Your task to perform on an android device: change notification settings in the gmail app Image 0: 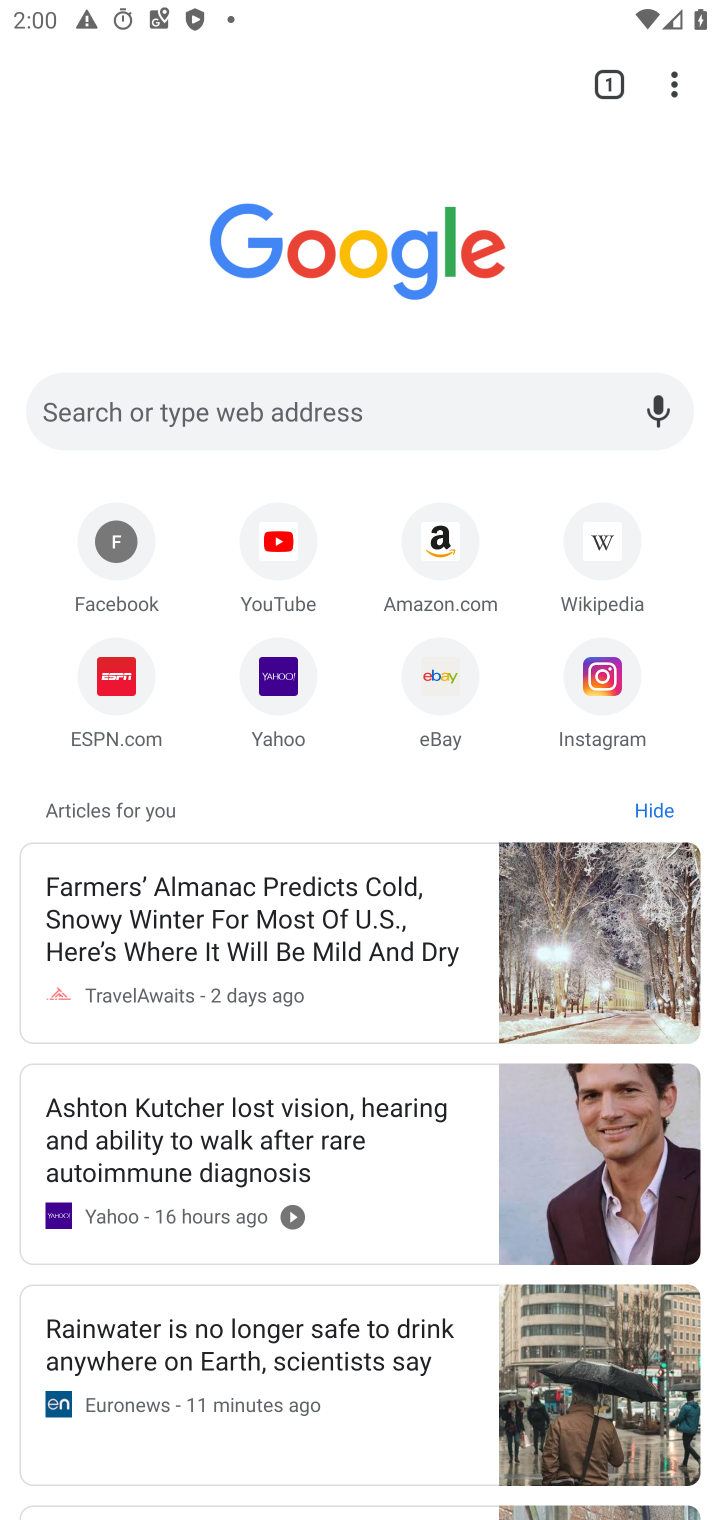
Step 0: press home button
Your task to perform on an android device: change notification settings in the gmail app Image 1: 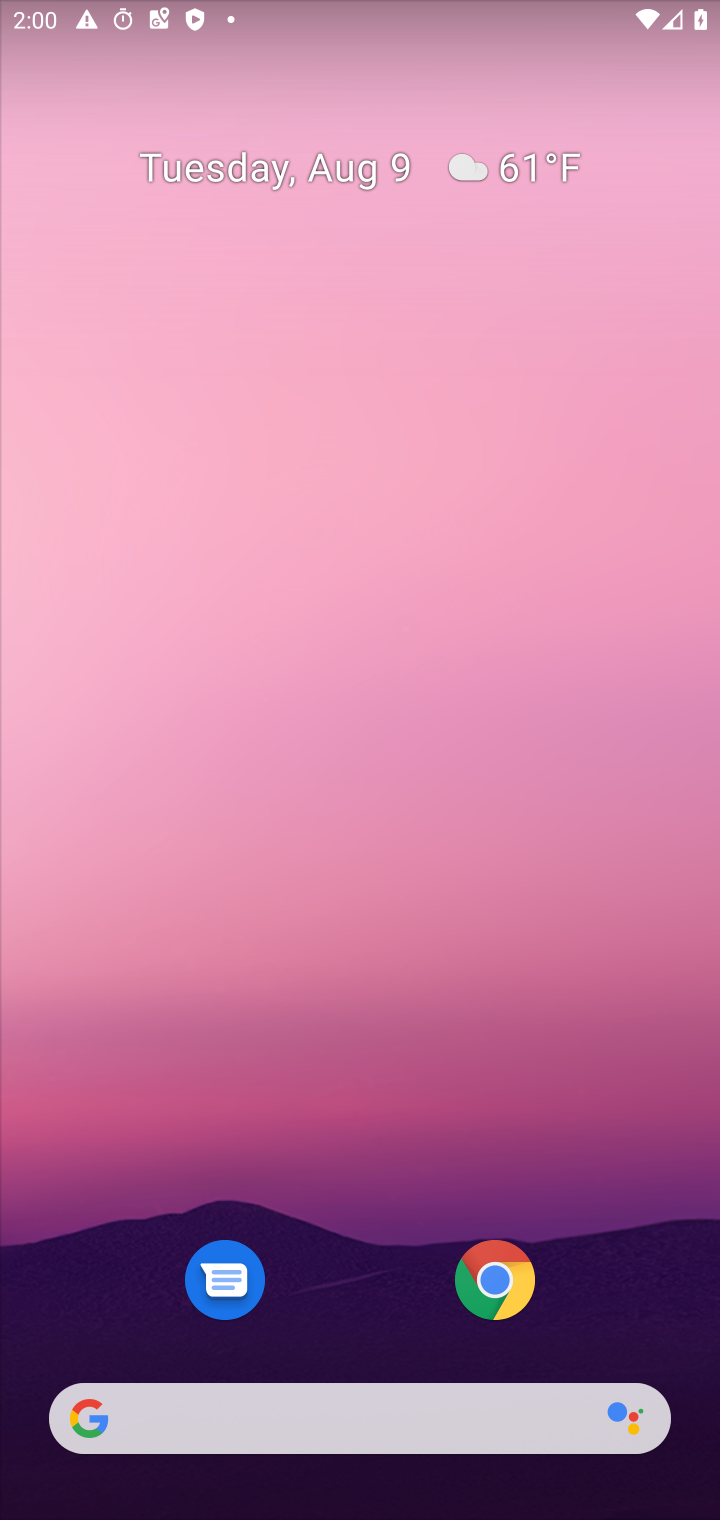
Step 1: drag from (468, 1090) to (584, 348)
Your task to perform on an android device: change notification settings in the gmail app Image 2: 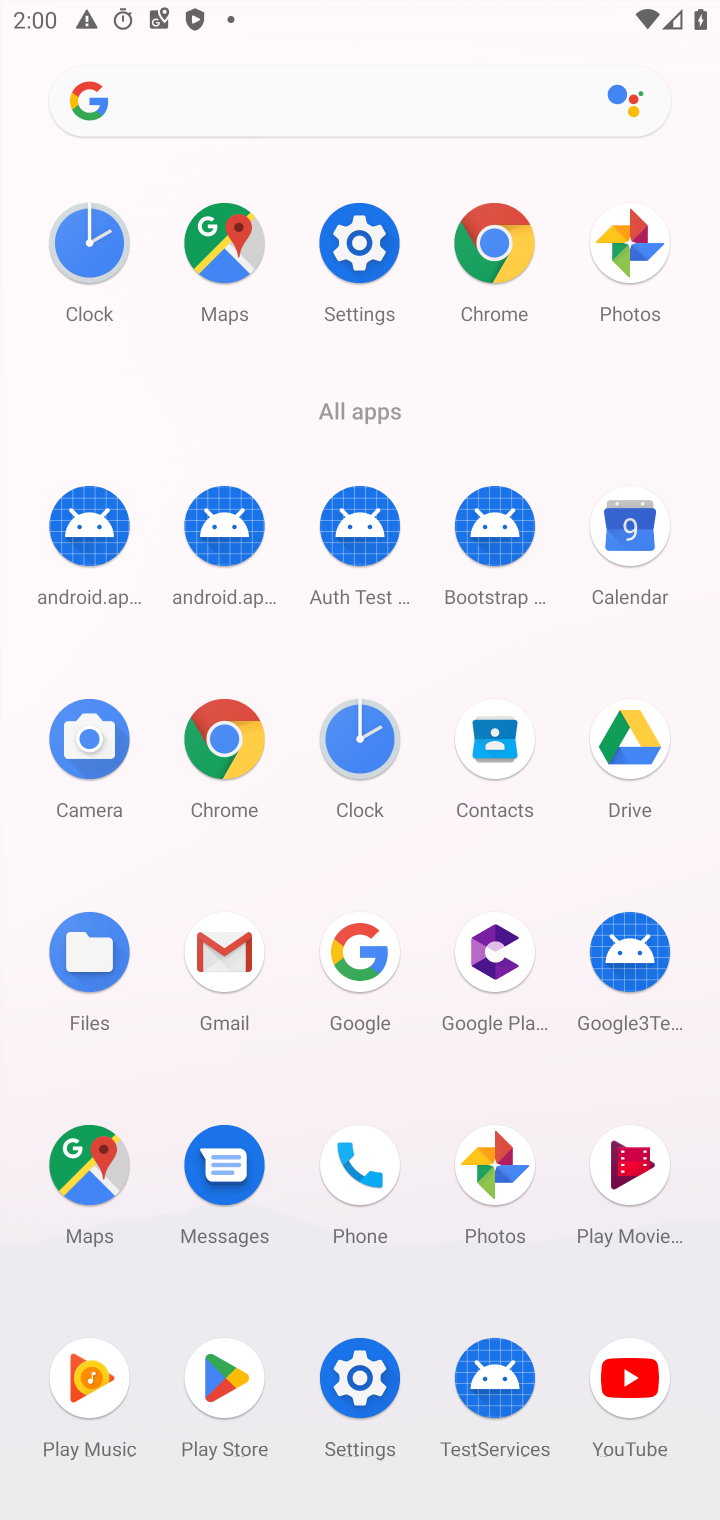
Step 2: click (228, 956)
Your task to perform on an android device: change notification settings in the gmail app Image 3: 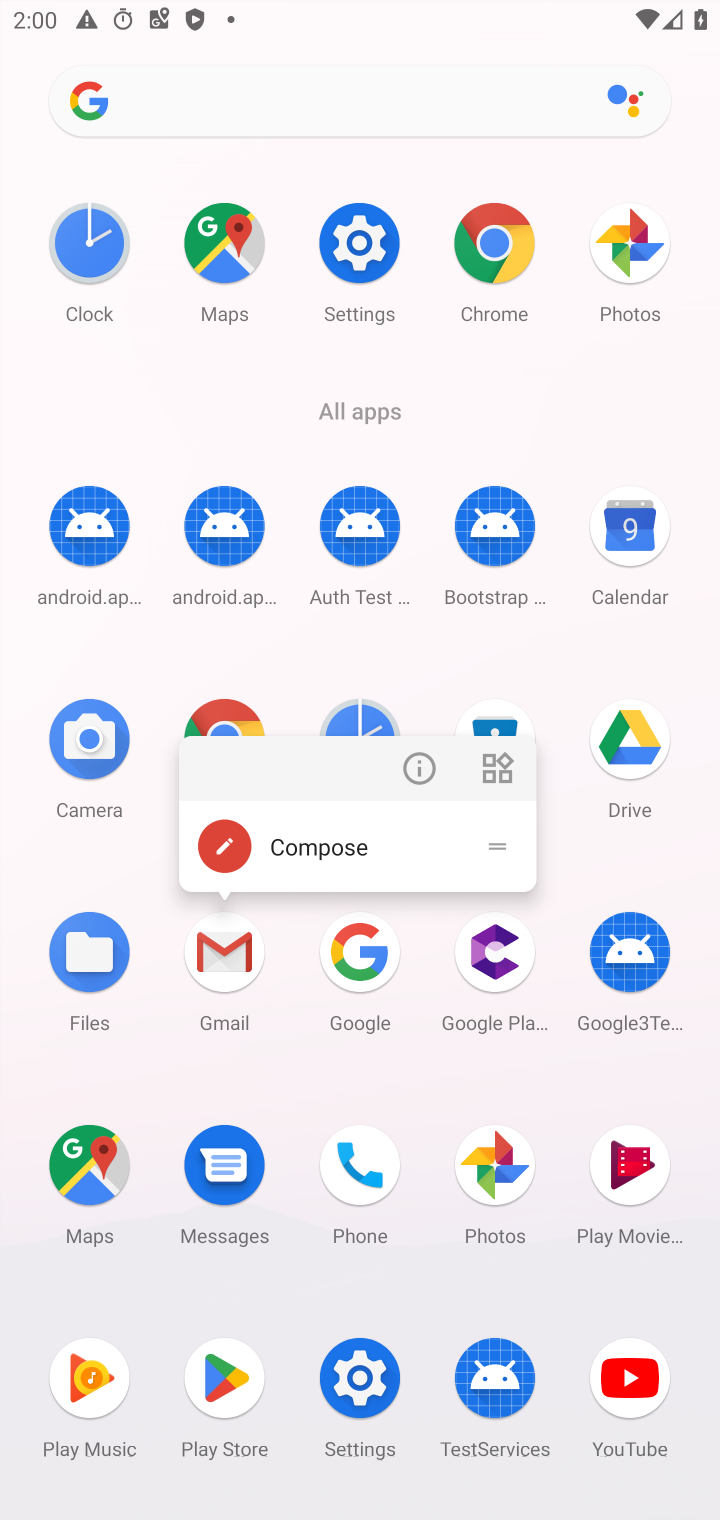
Step 3: click (228, 963)
Your task to perform on an android device: change notification settings in the gmail app Image 4: 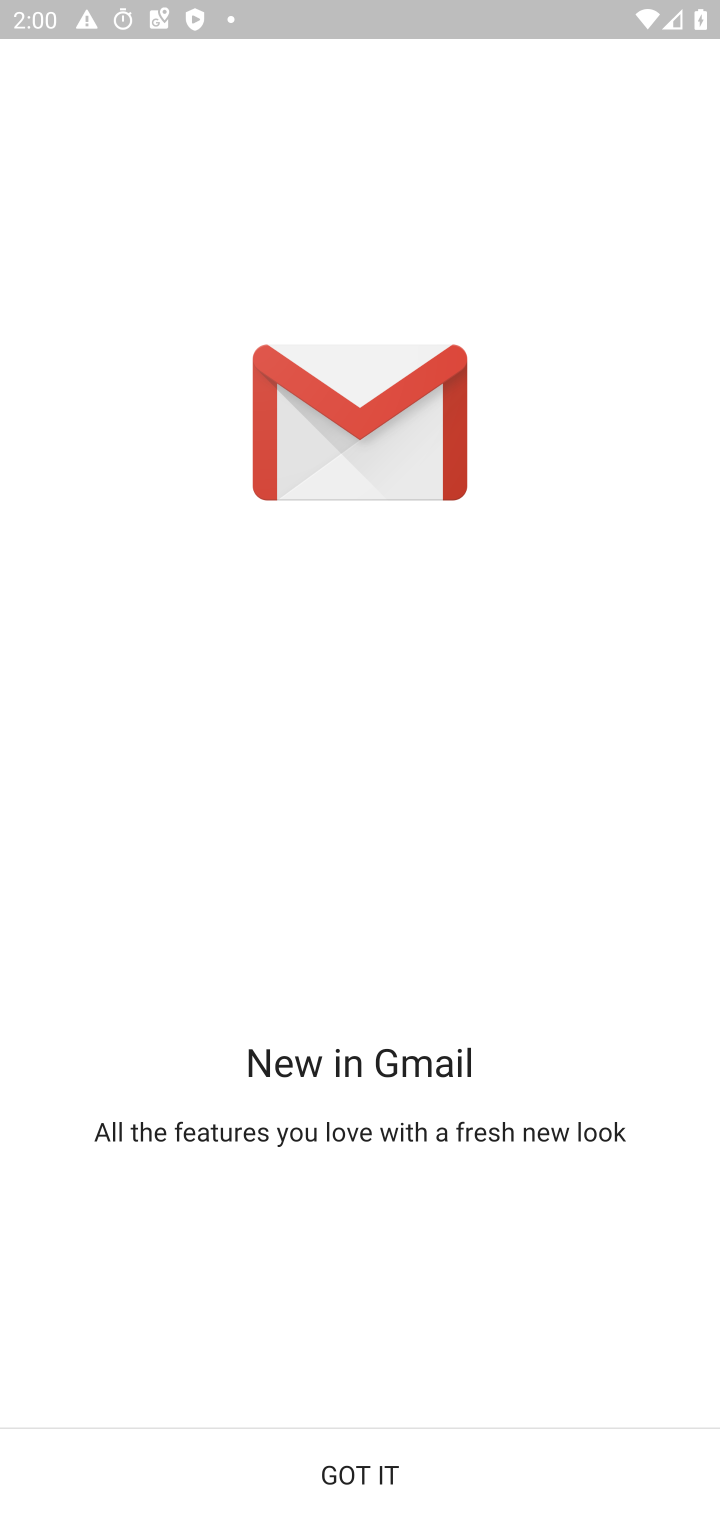
Step 4: click (363, 1478)
Your task to perform on an android device: change notification settings in the gmail app Image 5: 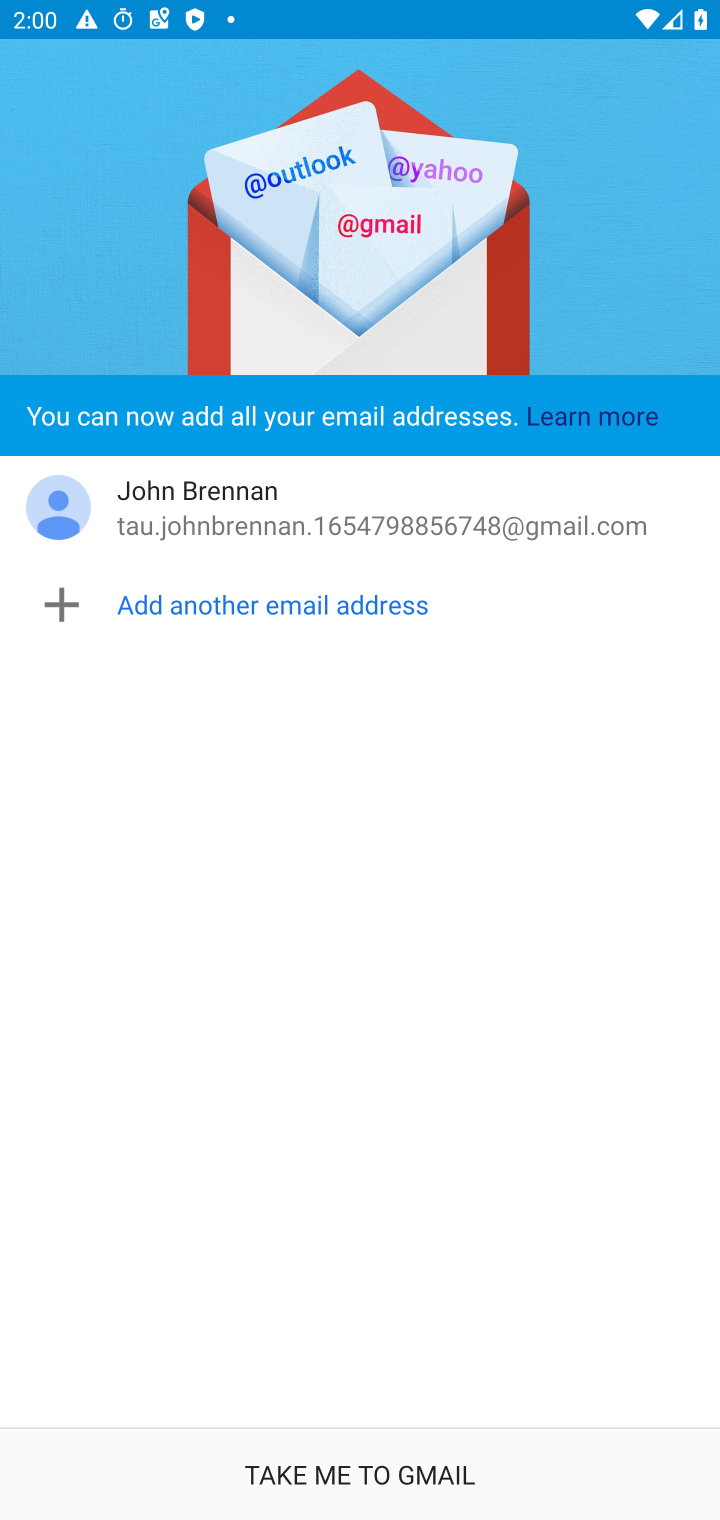
Step 5: click (412, 1458)
Your task to perform on an android device: change notification settings in the gmail app Image 6: 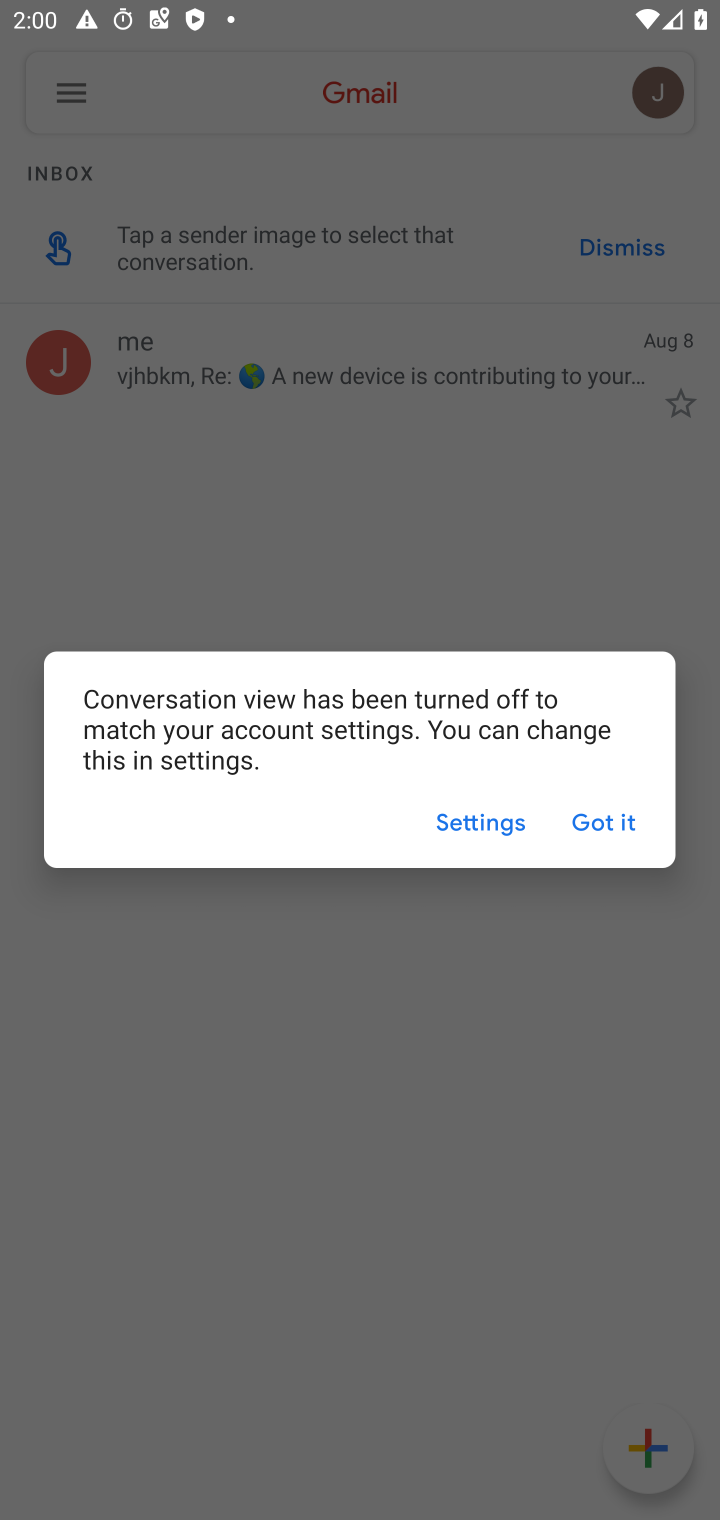
Step 6: click (607, 822)
Your task to perform on an android device: change notification settings in the gmail app Image 7: 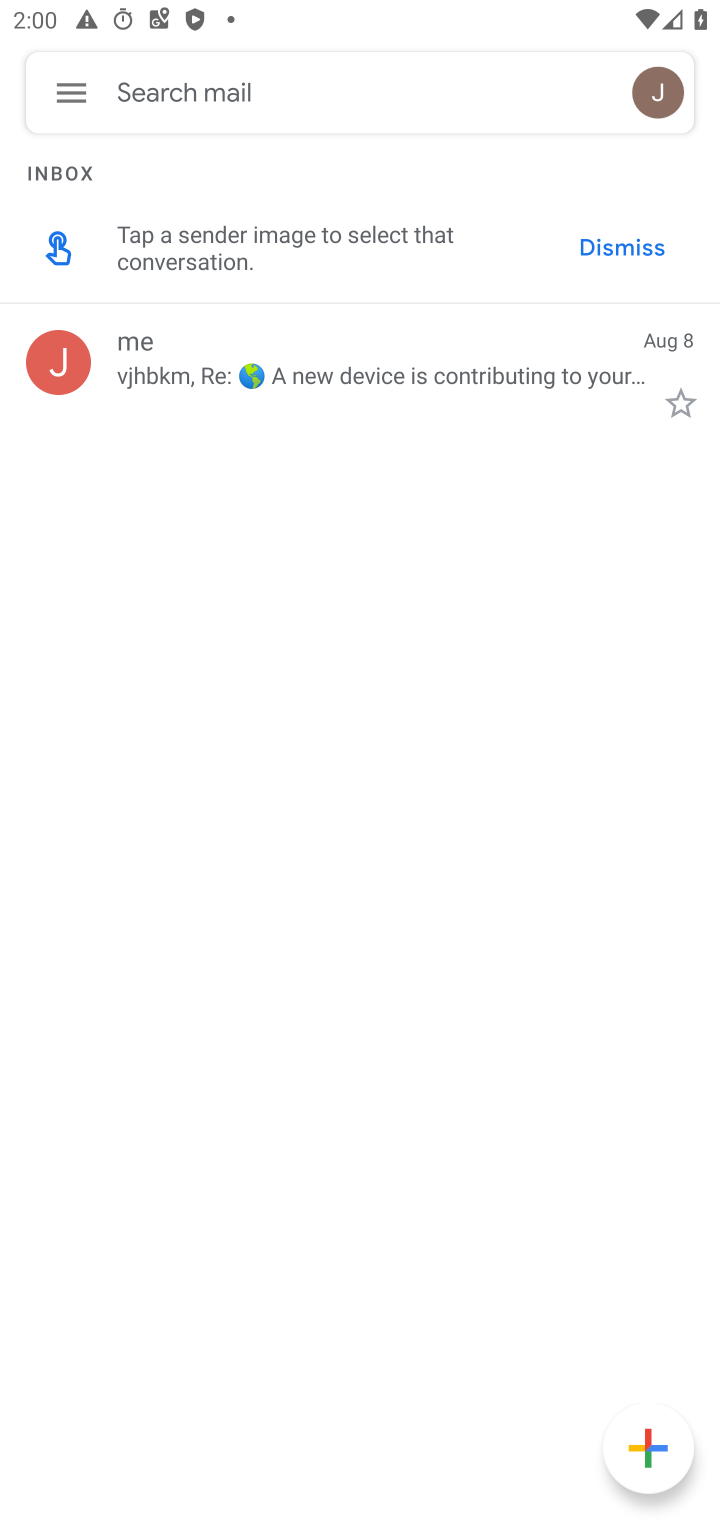
Step 7: click (70, 71)
Your task to perform on an android device: change notification settings in the gmail app Image 8: 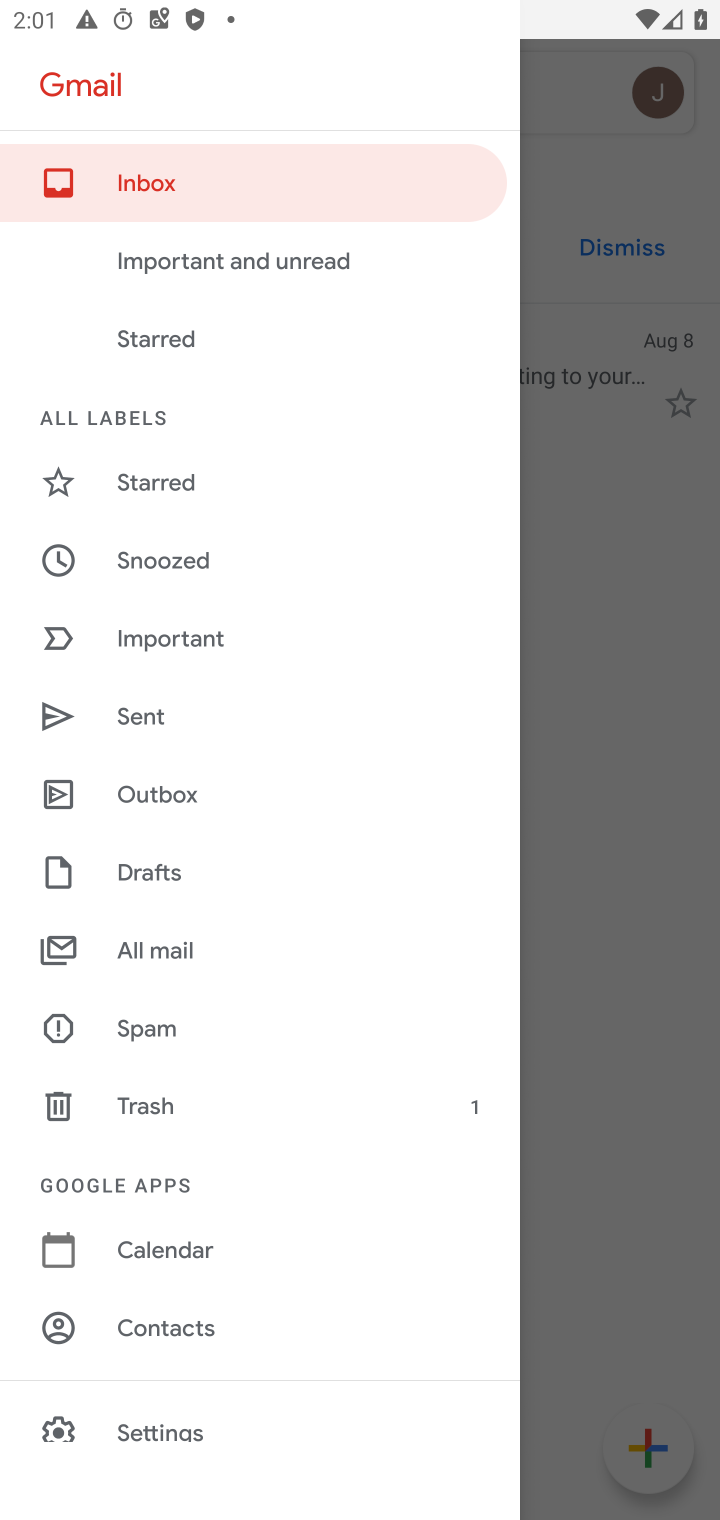
Step 8: click (155, 1424)
Your task to perform on an android device: change notification settings in the gmail app Image 9: 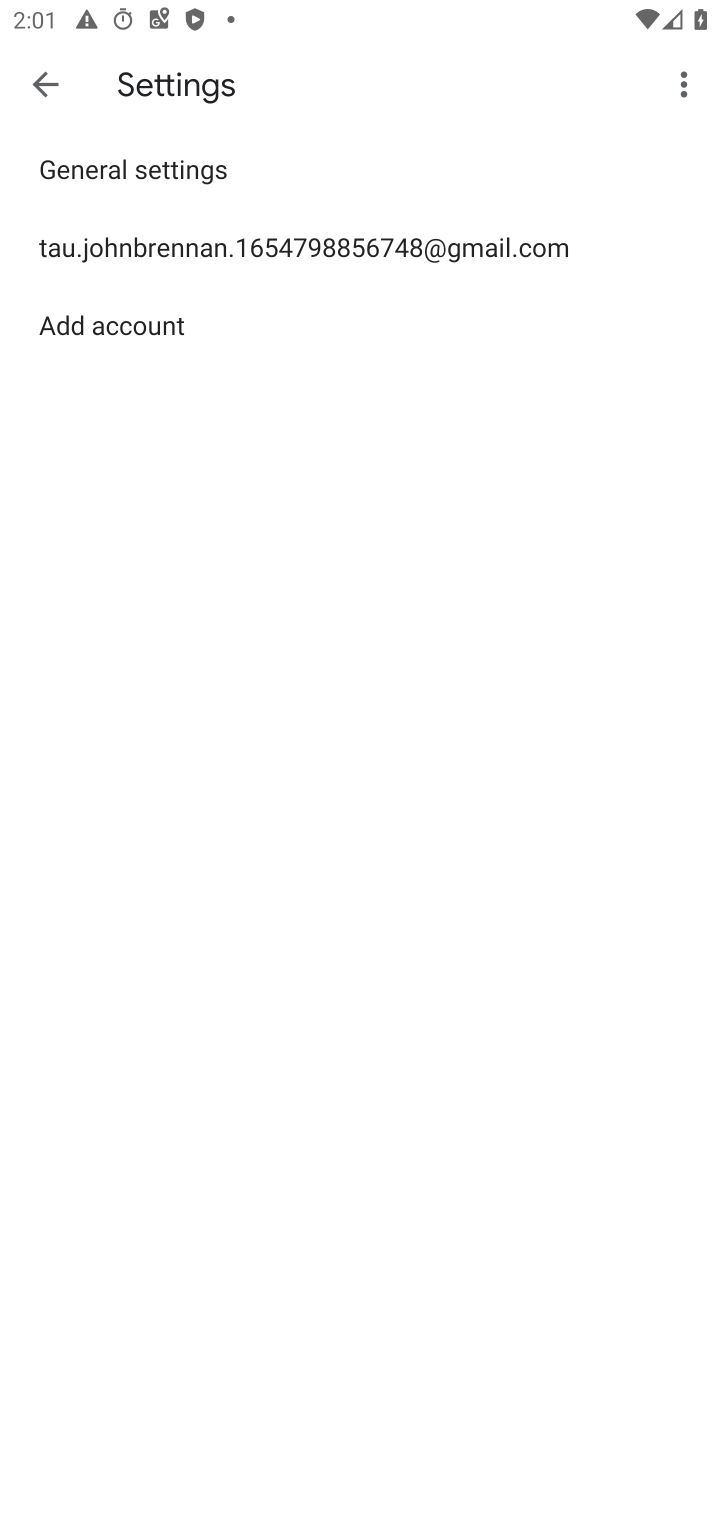
Step 9: click (457, 245)
Your task to perform on an android device: change notification settings in the gmail app Image 10: 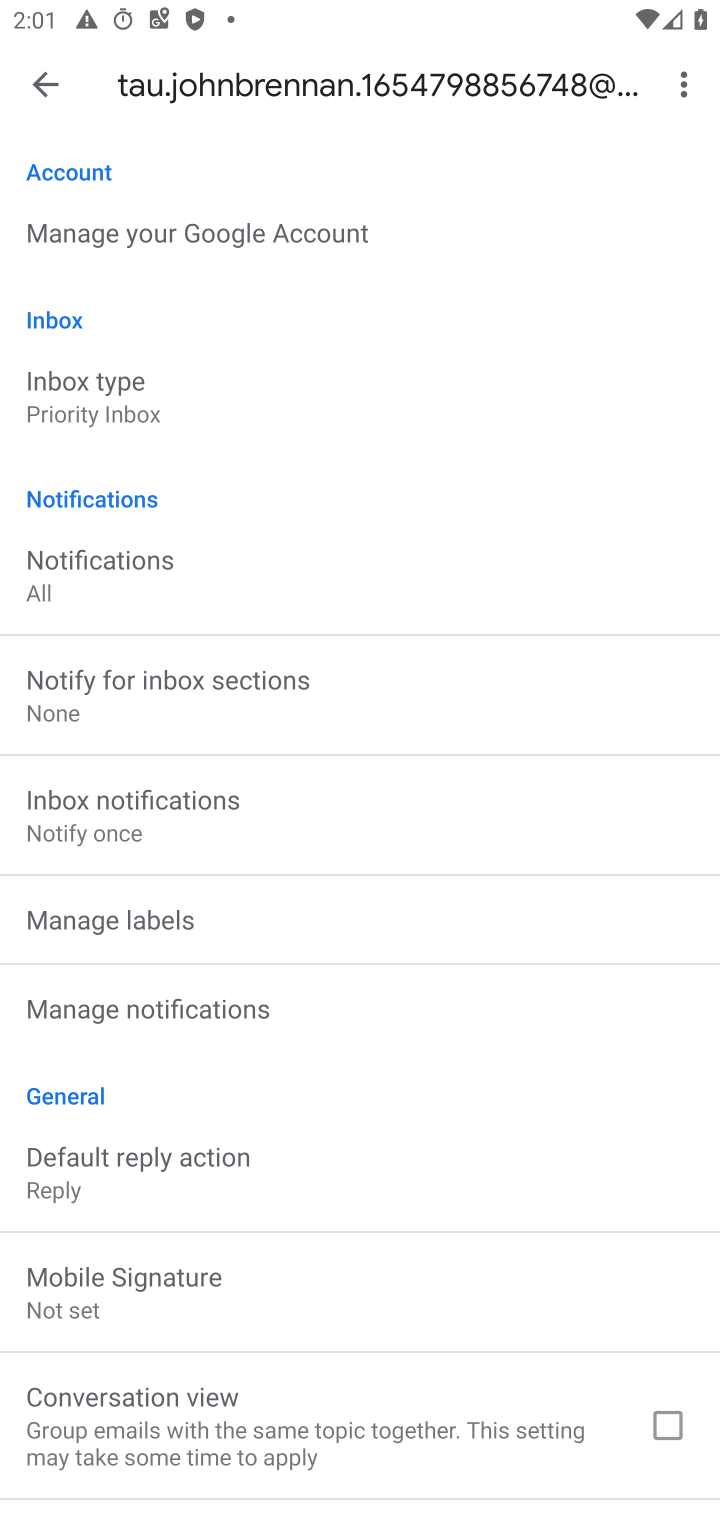
Step 10: click (99, 569)
Your task to perform on an android device: change notification settings in the gmail app Image 11: 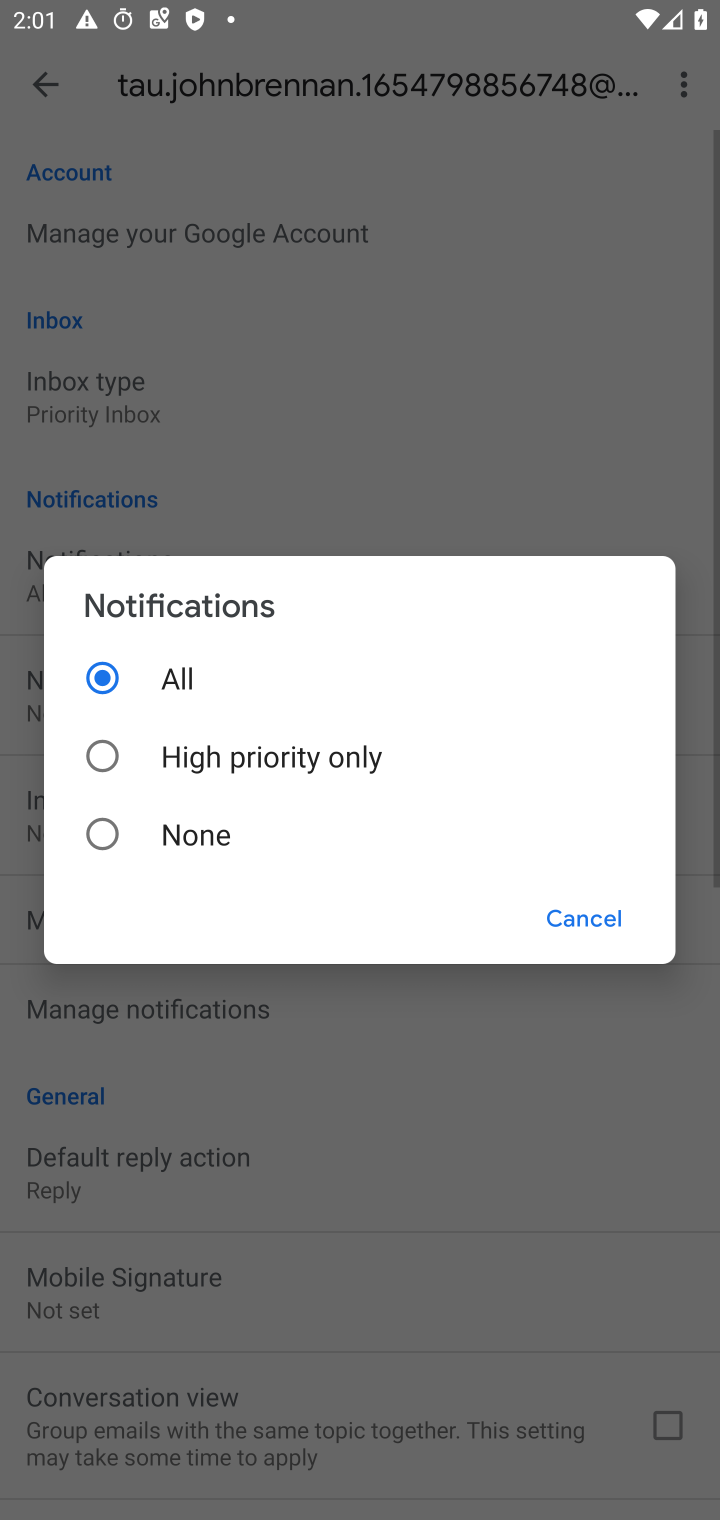
Step 11: click (97, 840)
Your task to perform on an android device: change notification settings in the gmail app Image 12: 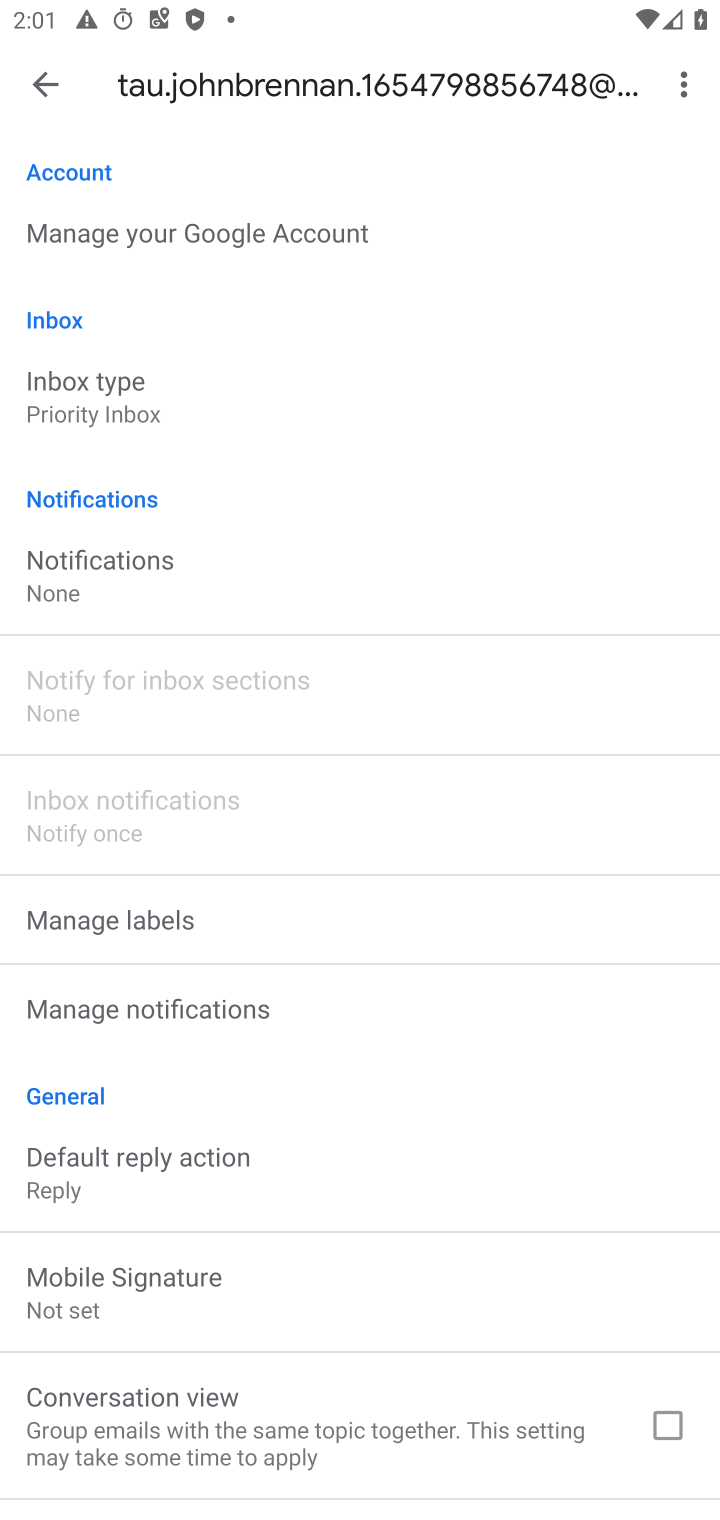
Step 12: task complete